Your task to perform on an android device: Turn off the flashlight Image 0: 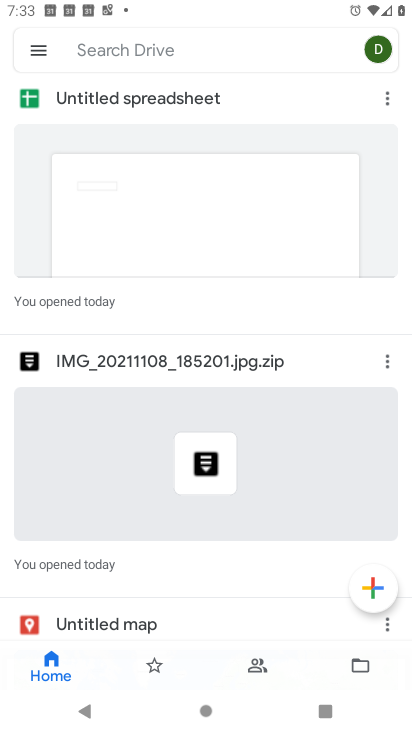
Step 0: press home button
Your task to perform on an android device: Turn off the flashlight Image 1: 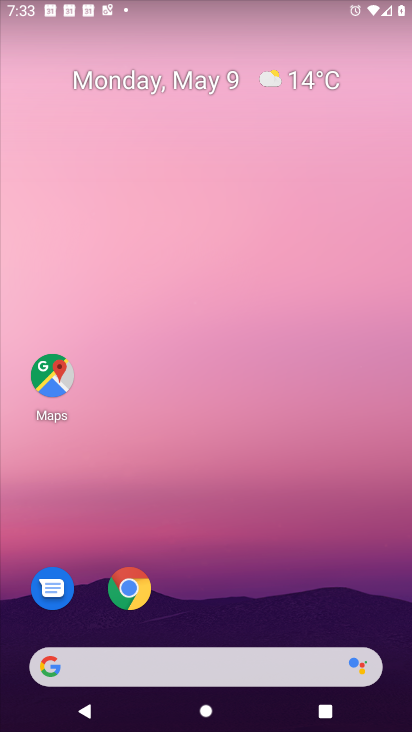
Step 1: drag from (342, 616) to (297, 38)
Your task to perform on an android device: Turn off the flashlight Image 2: 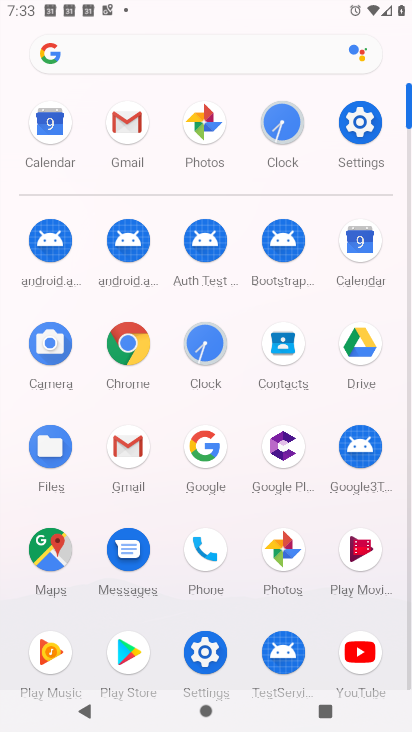
Step 2: click (211, 653)
Your task to perform on an android device: Turn off the flashlight Image 3: 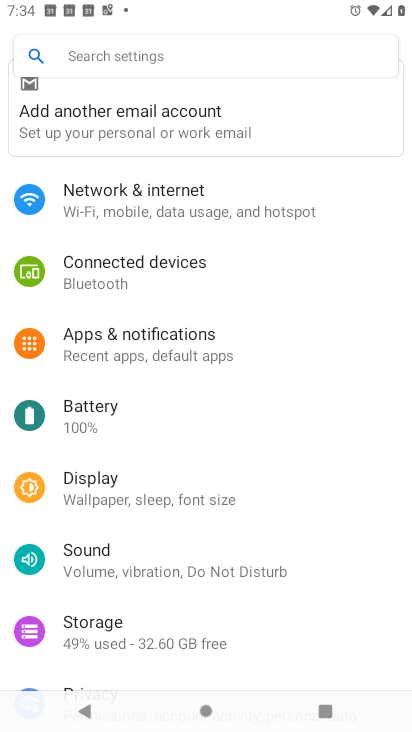
Step 3: task complete